Your task to perform on an android device: Go to notification settings Image 0: 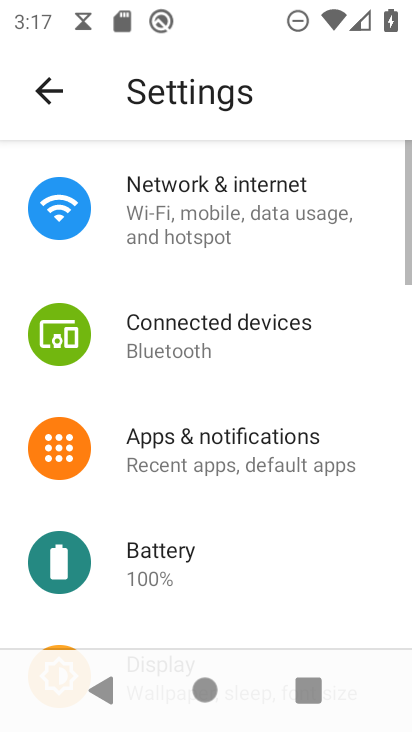
Step 0: drag from (233, 159) to (277, 549)
Your task to perform on an android device: Go to notification settings Image 1: 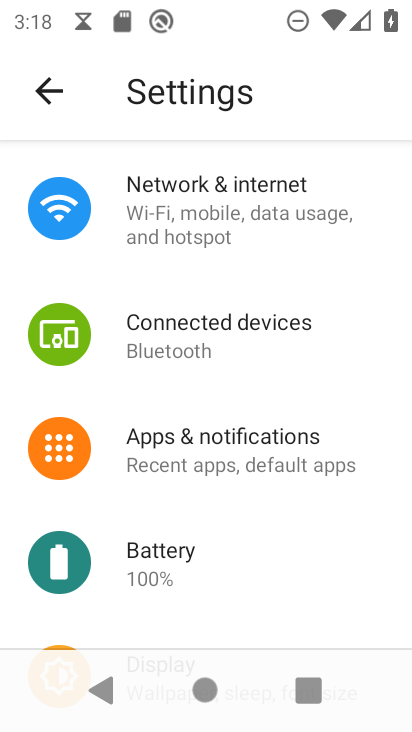
Step 1: click (221, 464)
Your task to perform on an android device: Go to notification settings Image 2: 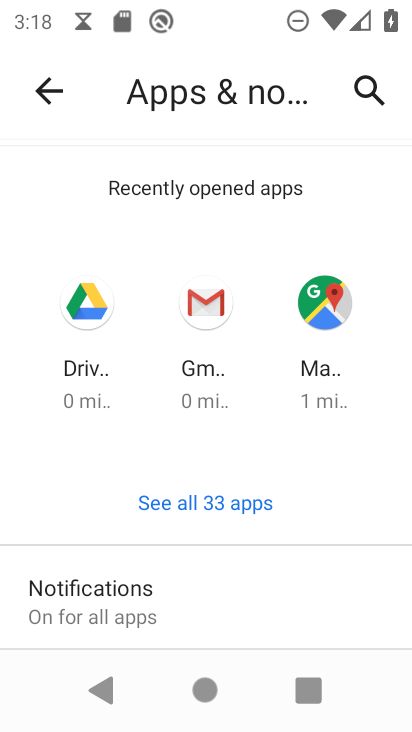
Step 2: click (80, 593)
Your task to perform on an android device: Go to notification settings Image 3: 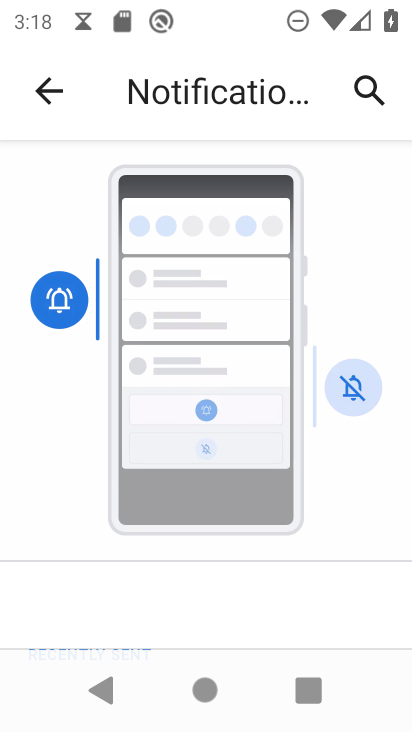
Step 3: task complete